Your task to perform on an android device: Open calendar and show me the fourth week of next month Image 0: 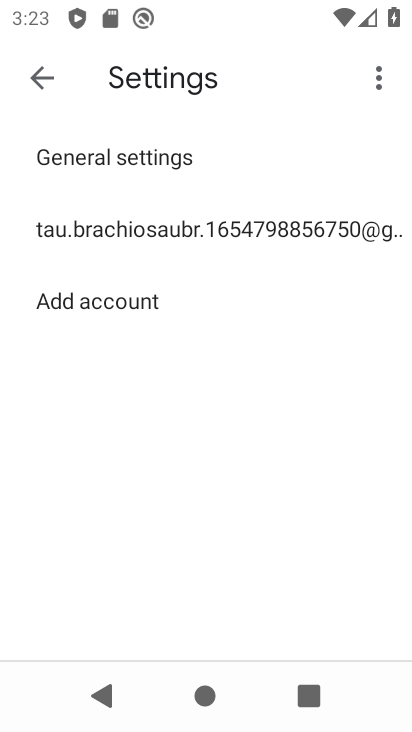
Step 0: press home button
Your task to perform on an android device: Open calendar and show me the fourth week of next month Image 1: 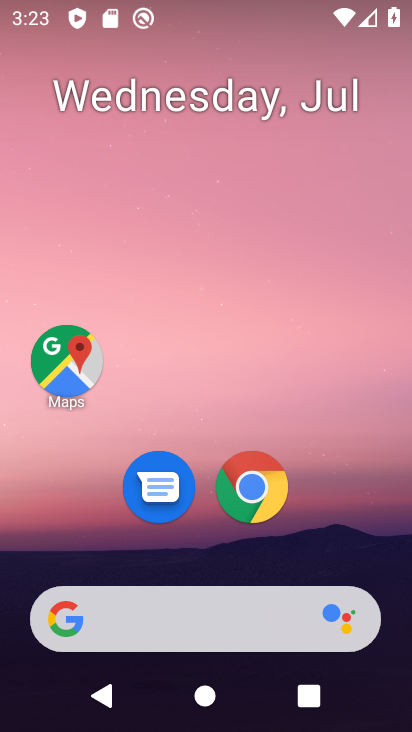
Step 1: drag from (124, 553) to (162, 200)
Your task to perform on an android device: Open calendar and show me the fourth week of next month Image 2: 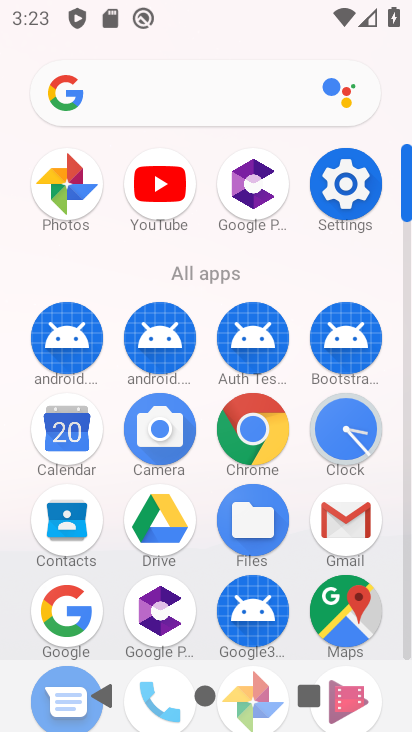
Step 2: drag from (187, 473) to (222, 232)
Your task to perform on an android device: Open calendar and show me the fourth week of next month Image 3: 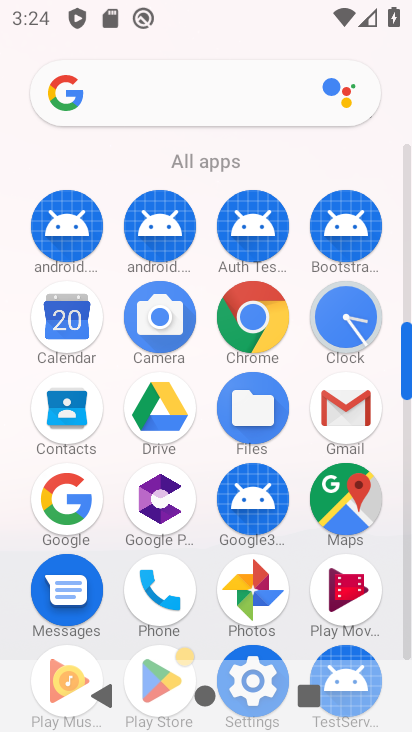
Step 3: click (67, 339)
Your task to perform on an android device: Open calendar and show me the fourth week of next month Image 4: 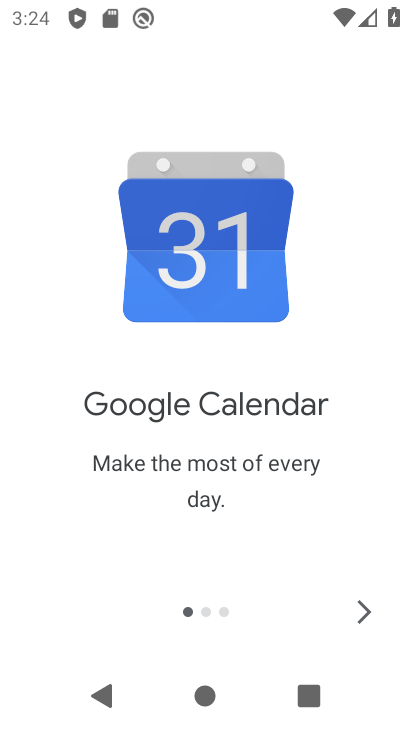
Step 4: click (365, 620)
Your task to perform on an android device: Open calendar and show me the fourth week of next month Image 5: 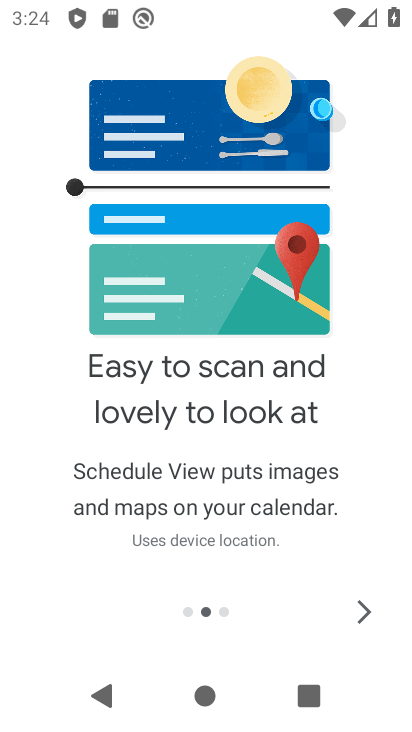
Step 5: click (360, 604)
Your task to perform on an android device: Open calendar and show me the fourth week of next month Image 6: 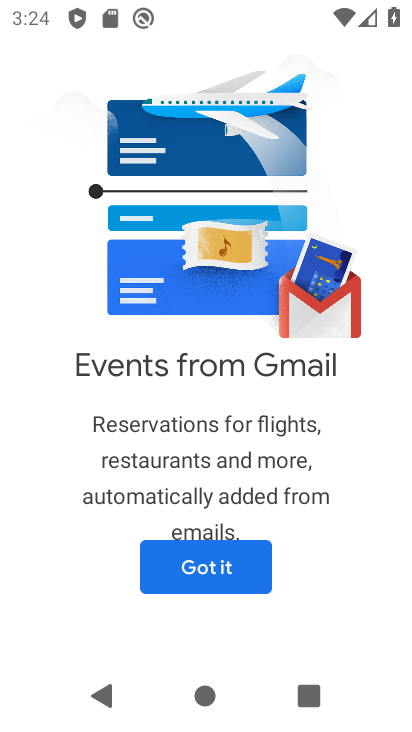
Step 6: click (238, 567)
Your task to perform on an android device: Open calendar and show me the fourth week of next month Image 7: 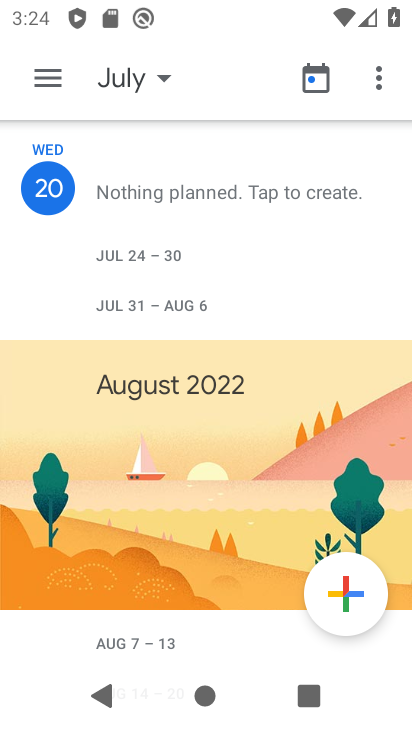
Step 7: click (160, 80)
Your task to perform on an android device: Open calendar and show me the fourth week of next month Image 8: 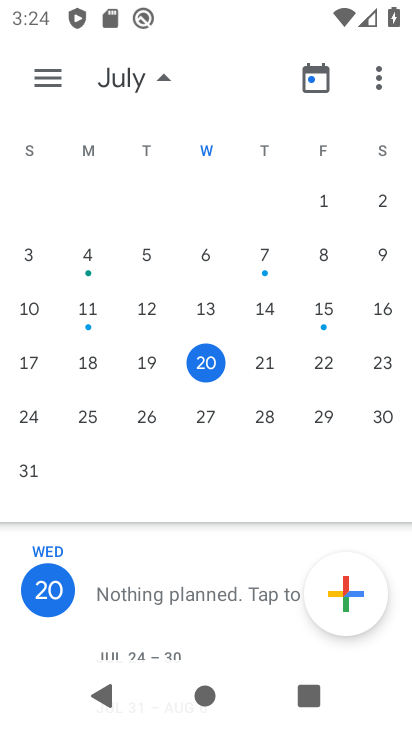
Step 8: drag from (333, 378) to (13, 333)
Your task to perform on an android device: Open calendar and show me the fourth week of next month Image 9: 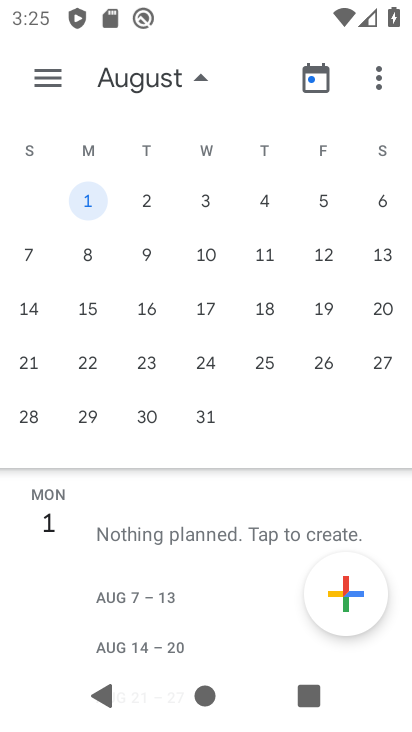
Step 9: click (24, 370)
Your task to perform on an android device: Open calendar and show me the fourth week of next month Image 10: 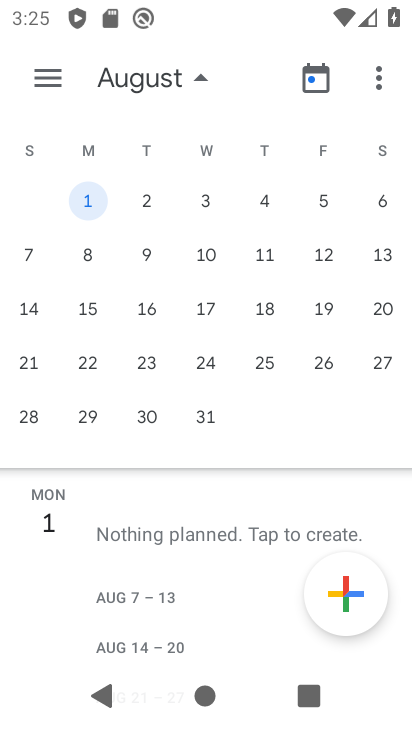
Step 10: click (35, 360)
Your task to perform on an android device: Open calendar and show me the fourth week of next month Image 11: 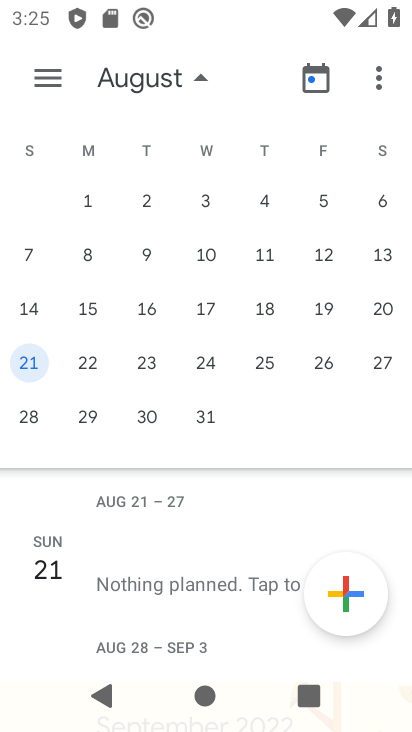
Step 11: task complete